Your task to perform on an android device: Is it going to rain this weekend? Image 0: 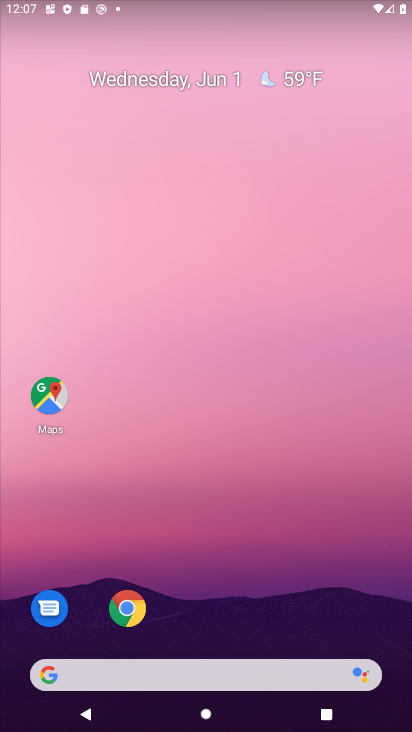
Step 0: click (296, 77)
Your task to perform on an android device: Is it going to rain this weekend? Image 1: 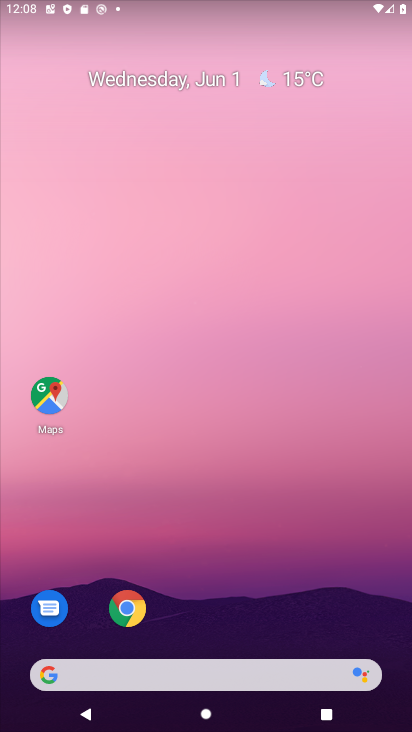
Step 1: click (293, 76)
Your task to perform on an android device: Is it going to rain this weekend? Image 2: 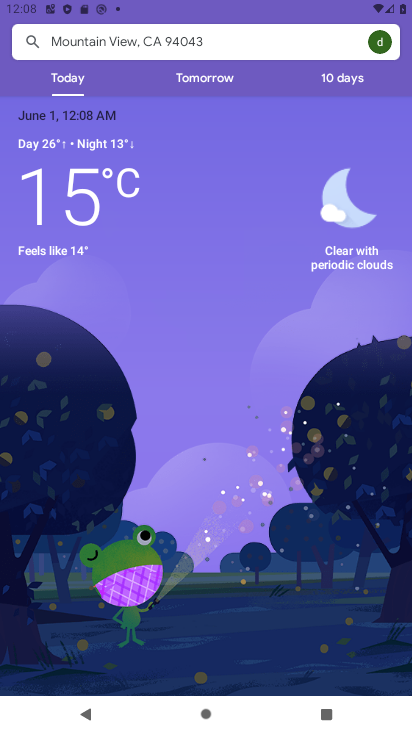
Step 2: click (342, 89)
Your task to perform on an android device: Is it going to rain this weekend? Image 3: 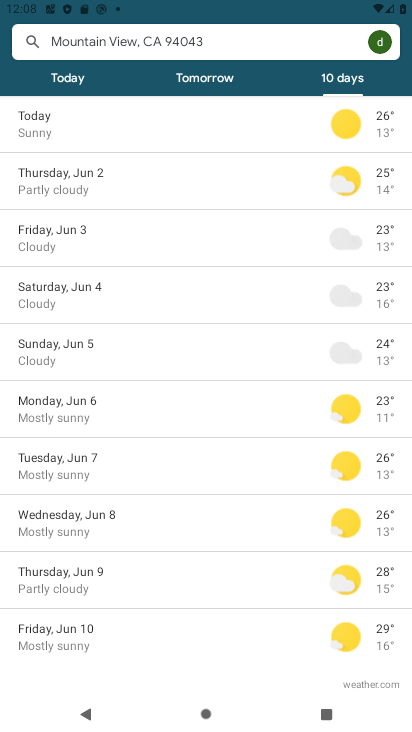
Step 3: task complete